Your task to perform on an android device: What is the recent news? Image 0: 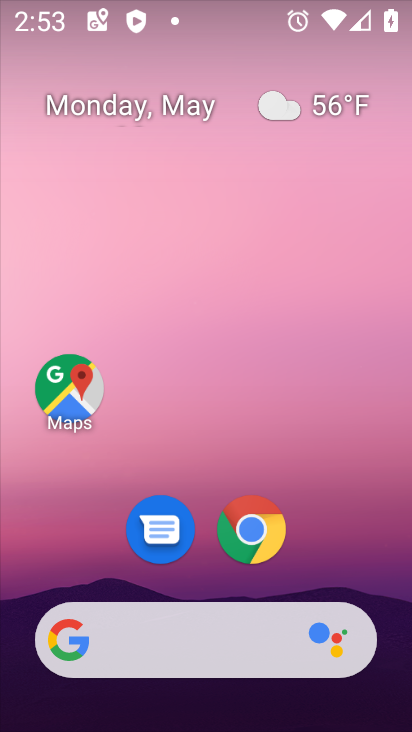
Step 0: click (177, 634)
Your task to perform on an android device: What is the recent news? Image 1: 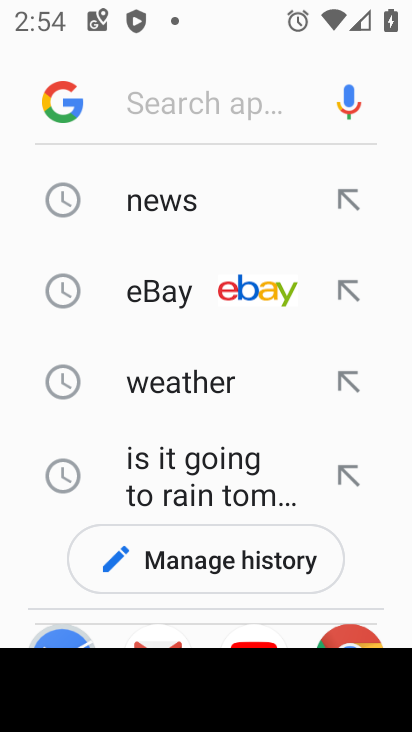
Step 1: type "what is the recent news"
Your task to perform on an android device: What is the recent news? Image 2: 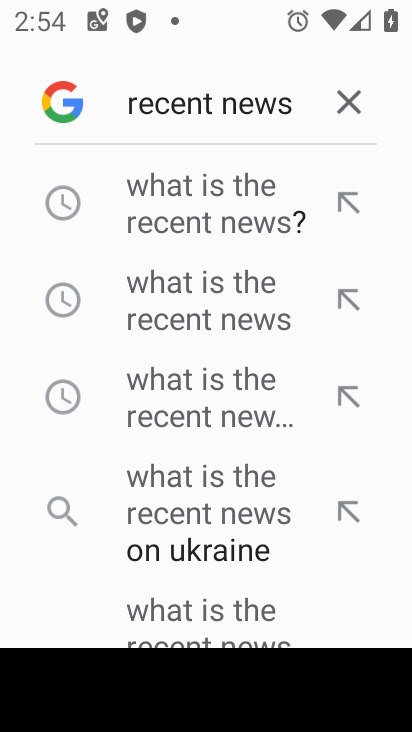
Step 2: click (198, 212)
Your task to perform on an android device: What is the recent news? Image 3: 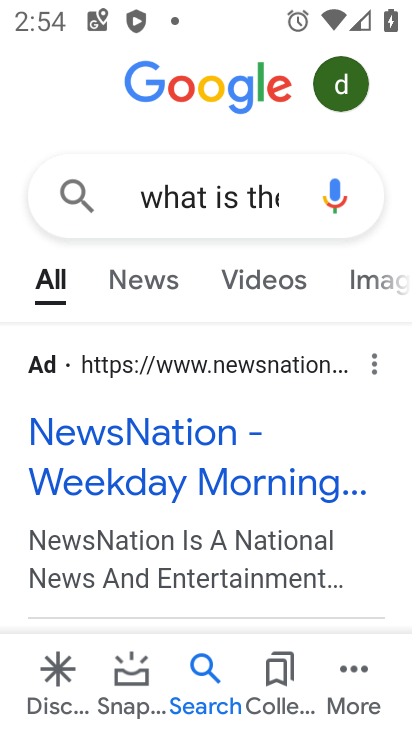
Step 3: click (134, 293)
Your task to perform on an android device: What is the recent news? Image 4: 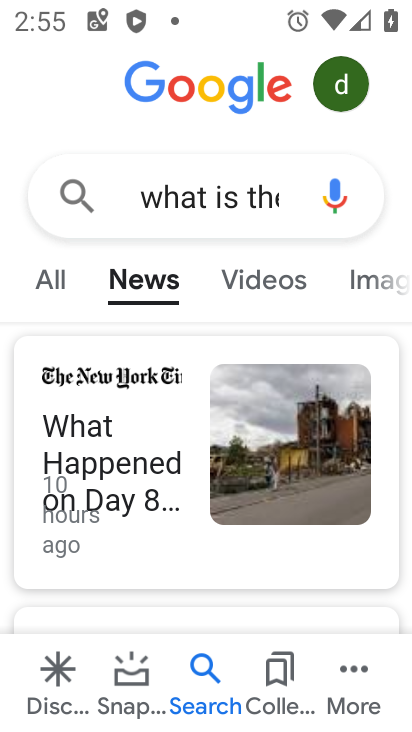
Step 4: task complete